Your task to perform on an android device: toggle show notifications on the lock screen Image 0: 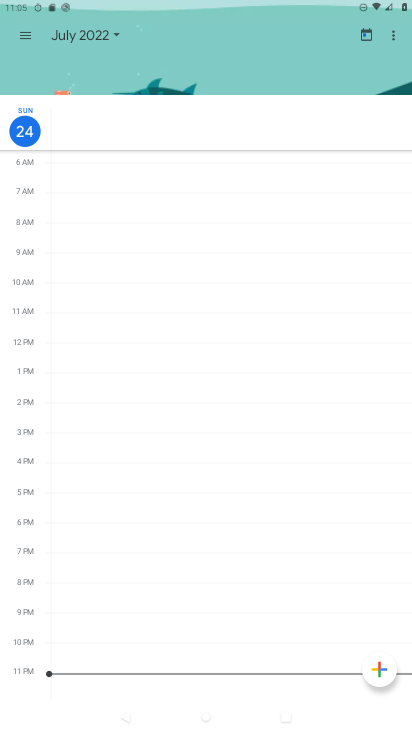
Step 0: press home button
Your task to perform on an android device: toggle show notifications on the lock screen Image 1: 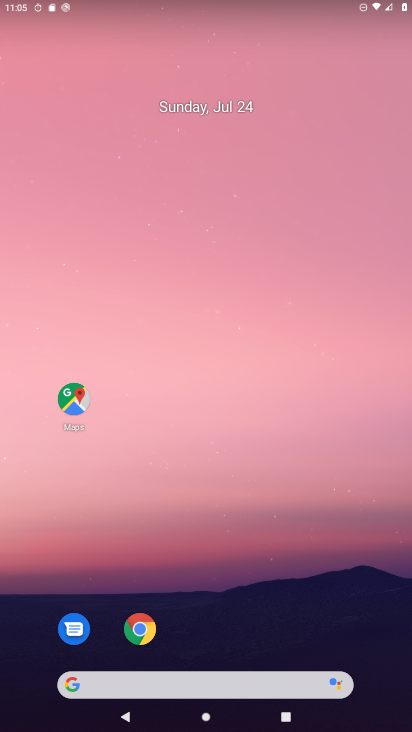
Step 1: drag from (232, 639) to (255, 151)
Your task to perform on an android device: toggle show notifications on the lock screen Image 2: 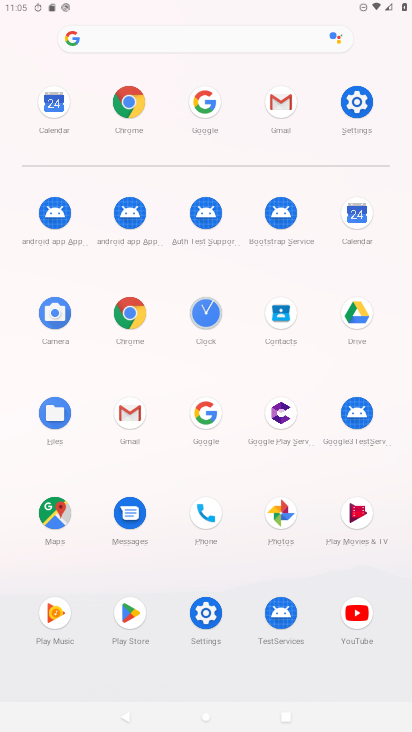
Step 2: click (340, 121)
Your task to perform on an android device: toggle show notifications on the lock screen Image 3: 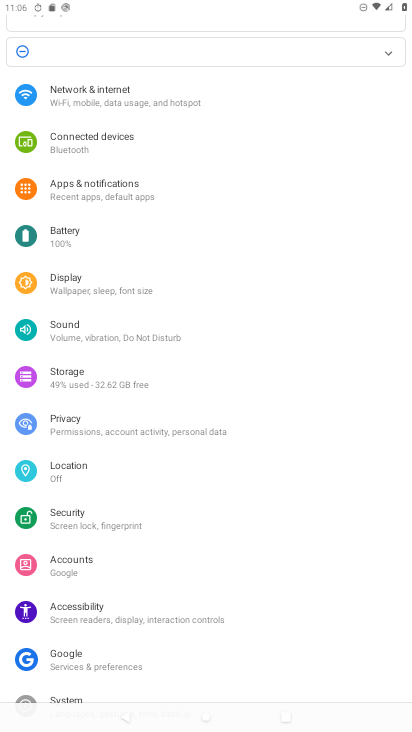
Step 3: click (123, 178)
Your task to perform on an android device: toggle show notifications on the lock screen Image 4: 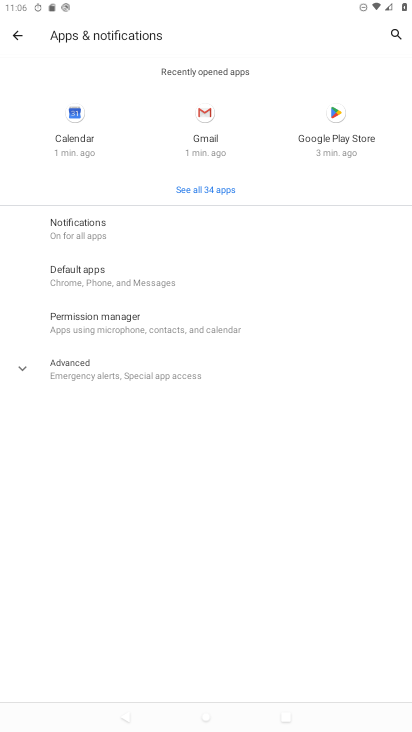
Step 4: click (110, 243)
Your task to perform on an android device: toggle show notifications on the lock screen Image 5: 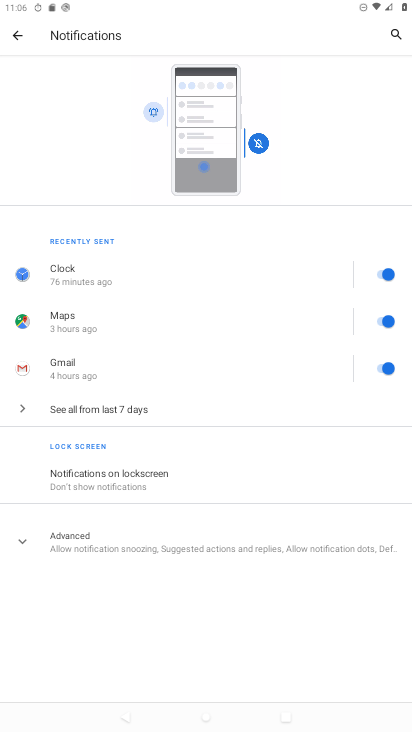
Step 5: click (119, 479)
Your task to perform on an android device: toggle show notifications on the lock screen Image 6: 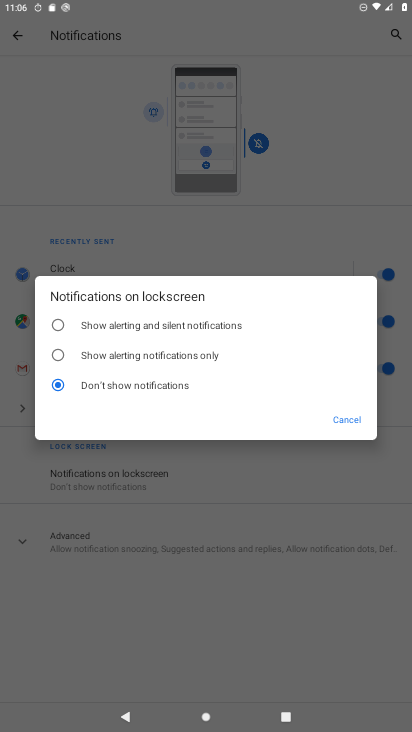
Step 6: click (59, 321)
Your task to perform on an android device: toggle show notifications on the lock screen Image 7: 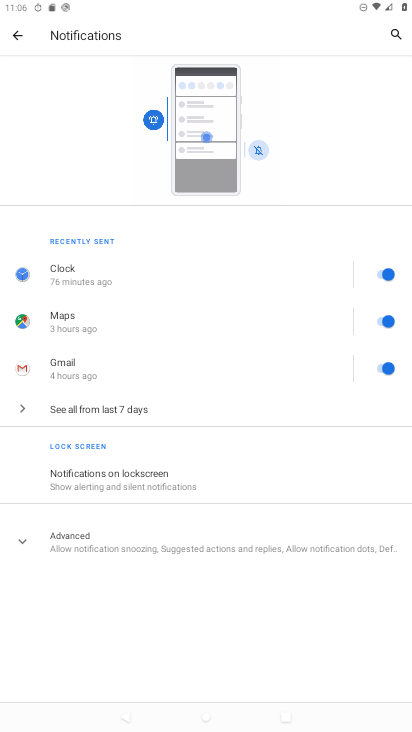
Step 7: task complete